Your task to perform on an android device: turn on improve location accuracy Image 0: 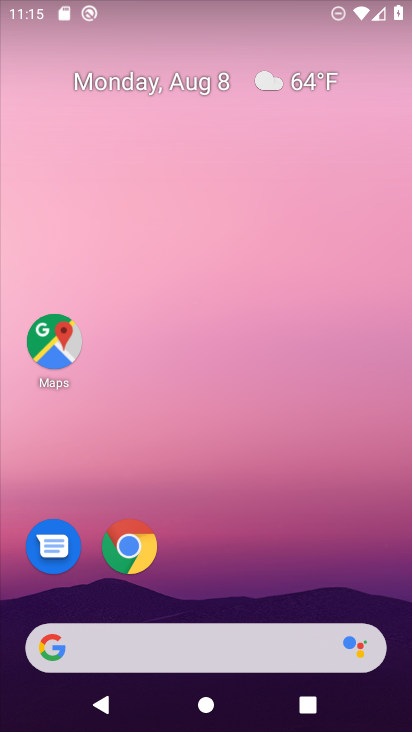
Step 0: drag from (239, 593) to (248, 25)
Your task to perform on an android device: turn on improve location accuracy Image 1: 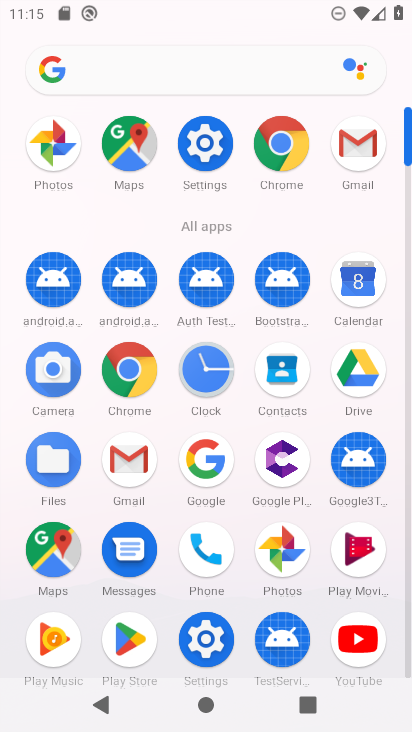
Step 1: click (203, 138)
Your task to perform on an android device: turn on improve location accuracy Image 2: 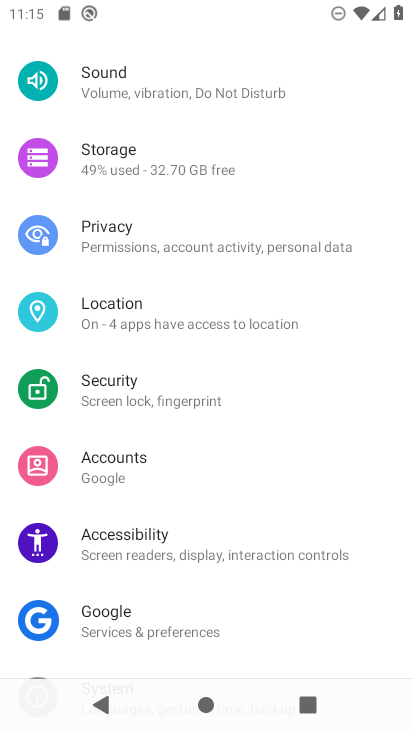
Step 2: click (145, 301)
Your task to perform on an android device: turn on improve location accuracy Image 3: 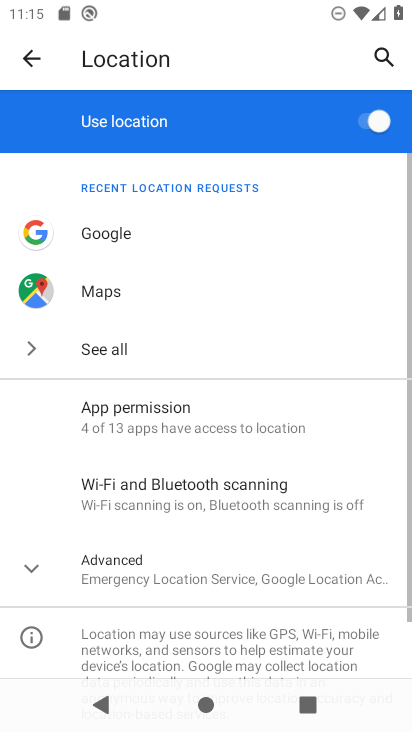
Step 3: click (30, 564)
Your task to perform on an android device: turn on improve location accuracy Image 4: 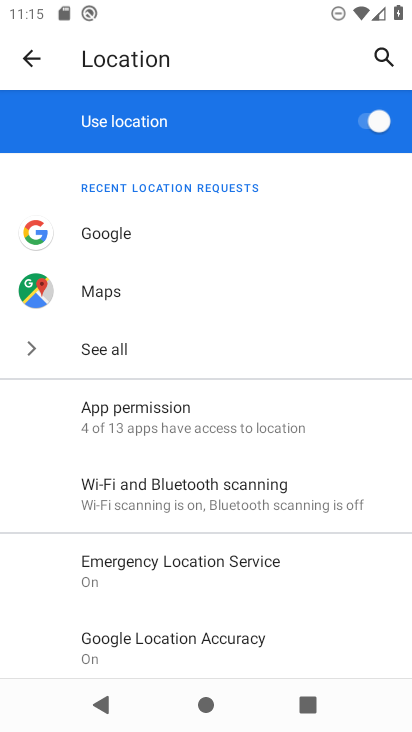
Step 4: click (133, 659)
Your task to perform on an android device: turn on improve location accuracy Image 5: 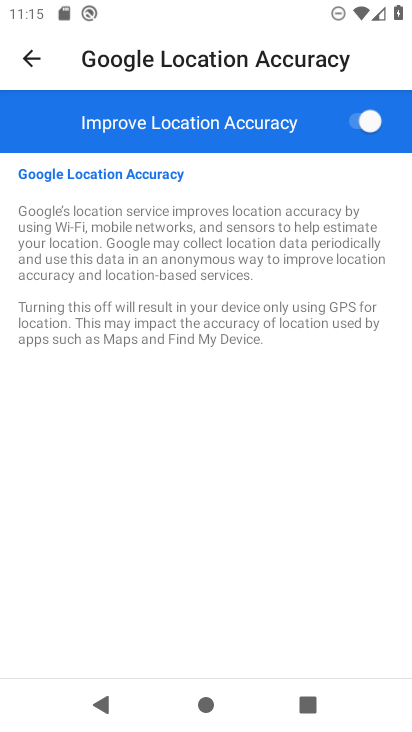
Step 5: task complete